Your task to perform on an android device: change the upload size in google photos Image 0: 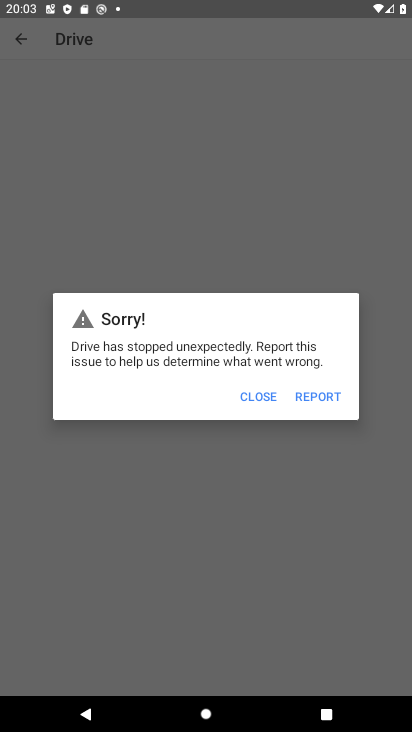
Step 0: press home button
Your task to perform on an android device: change the upload size in google photos Image 1: 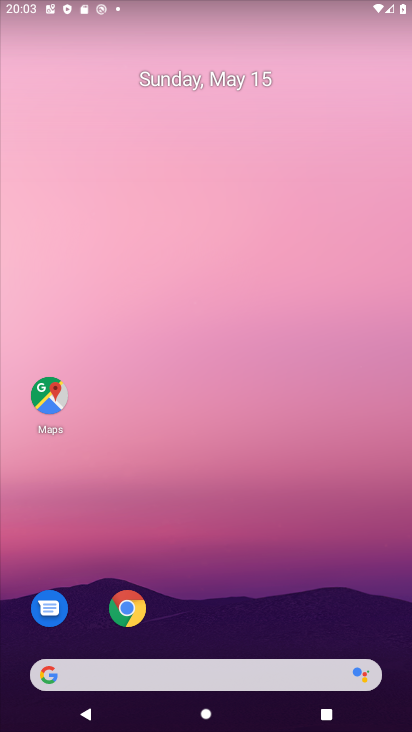
Step 1: drag from (239, 604) to (270, 188)
Your task to perform on an android device: change the upload size in google photos Image 2: 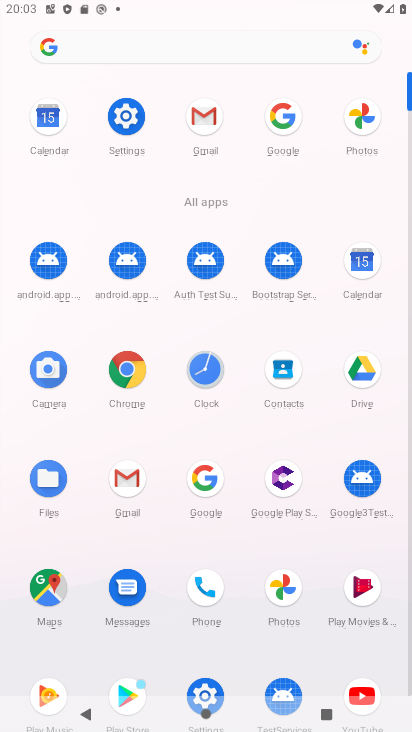
Step 2: click (365, 117)
Your task to perform on an android device: change the upload size in google photos Image 3: 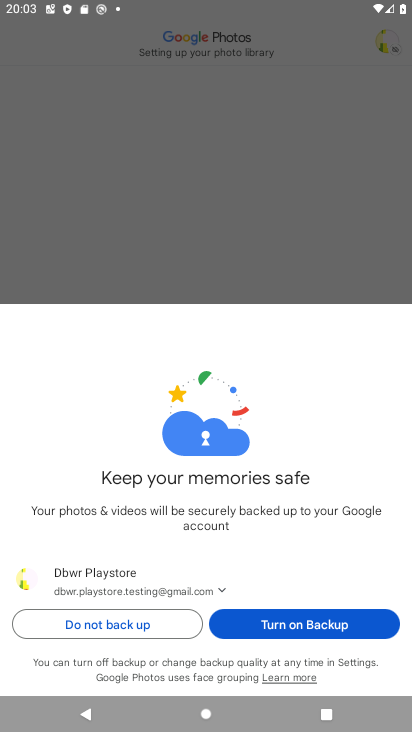
Step 3: click (115, 626)
Your task to perform on an android device: change the upload size in google photos Image 4: 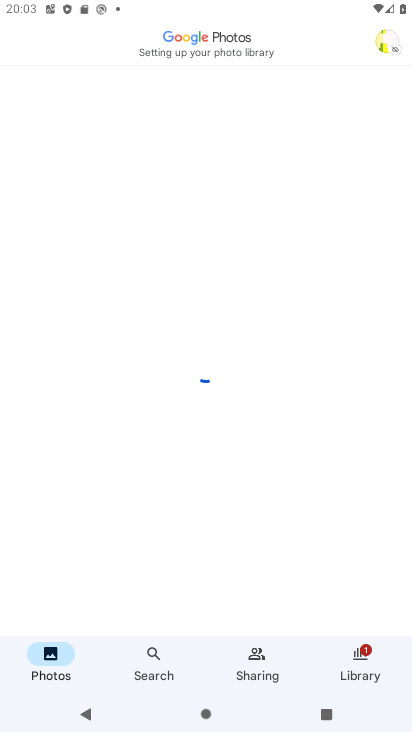
Step 4: click (390, 45)
Your task to perform on an android device: change the upload size in google photos Image 5: 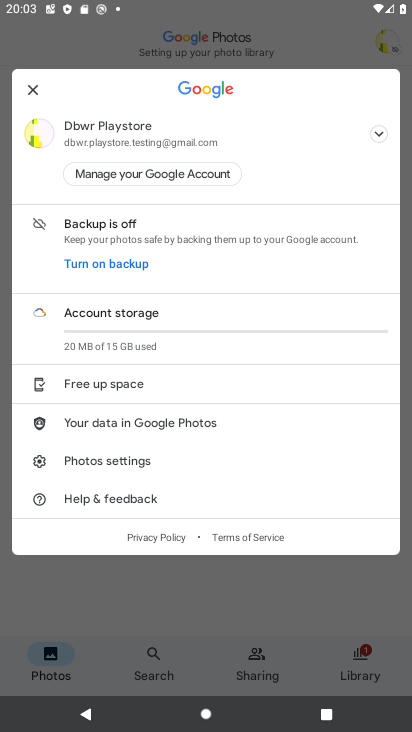
Step 5: click (138, 465)
Your task to perform on an android device: change the upload size in google photos Image 6: 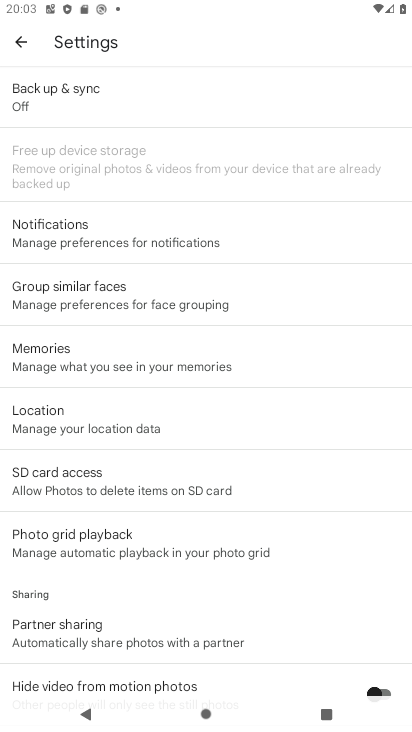
Step 6: click (105, 99)
Your task to perform on an android device: change the upload size in google photos Image 7: 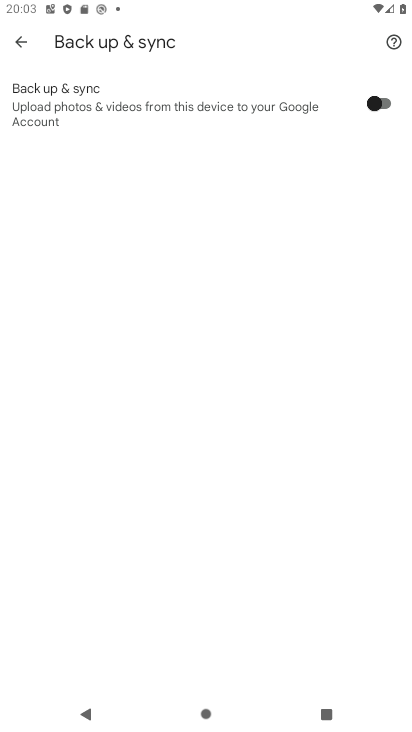
Step 7: click (383, 100)
Your task to perform on an android device: change the upload size in google photos Image 8: 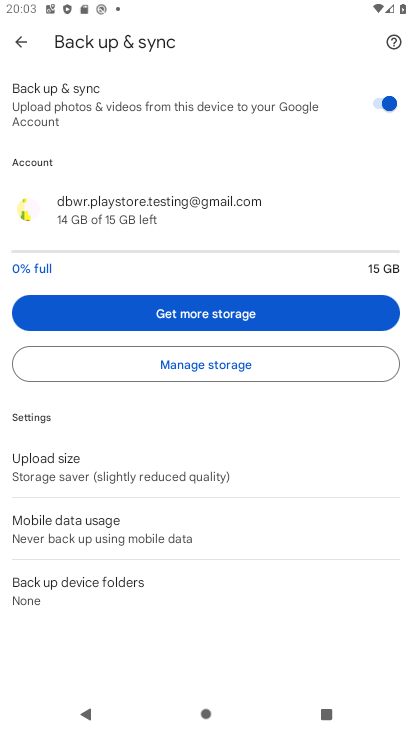
Step 8: click (89, 475)
Your task to perform on an android device: change the upload size in google photos Image 9: 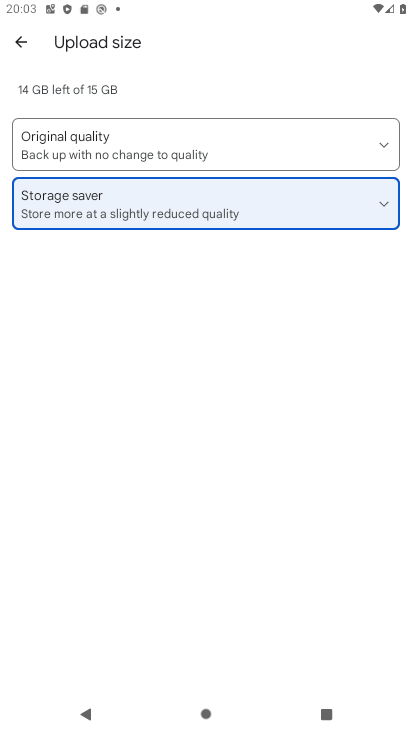
Step 9: click (124, 128)
Your task to perform on an android device: change the upload size in google photos Image 10: 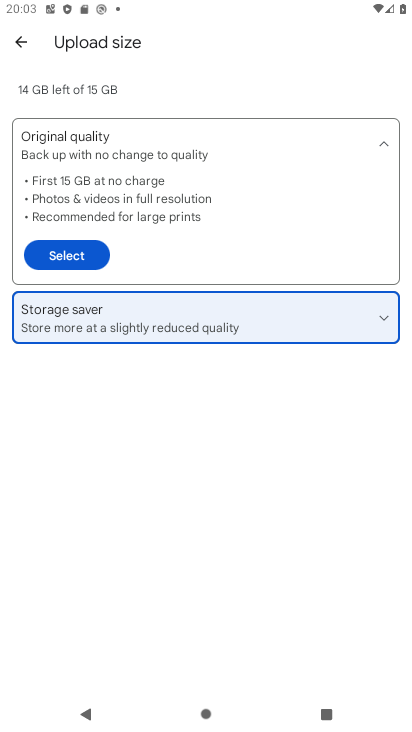
Step 10: click (70, 264)
Your task to perform on an android device: change the upload size in google photos Image 11: 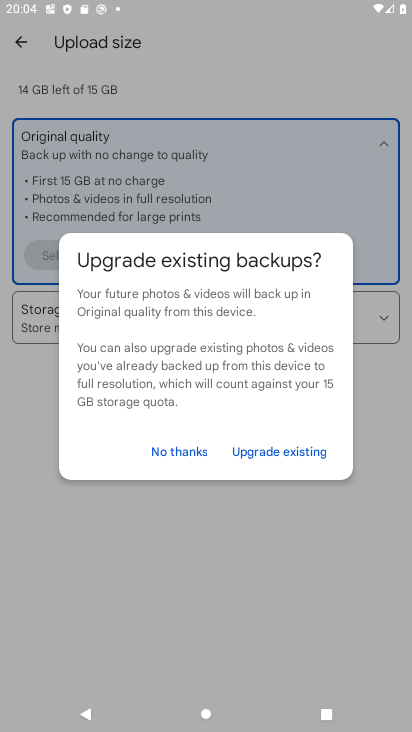
Step 11: click (177, 452)
Your task to perform on an android device: change the upload size in google photos Image 12: 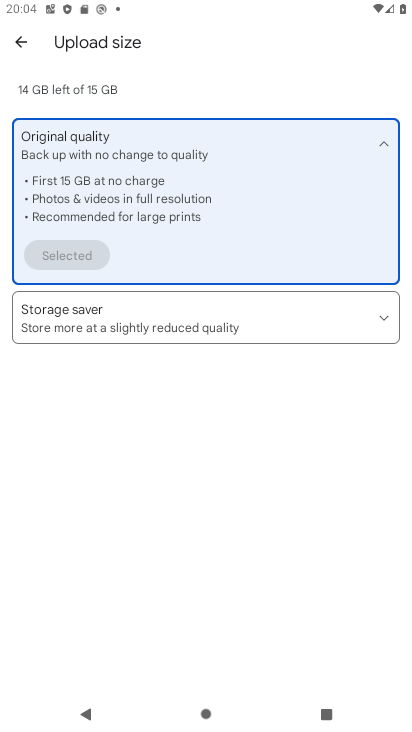
Step 12: task complete